Your task to perform on an android device: turn off notifications in google photos Image 0: 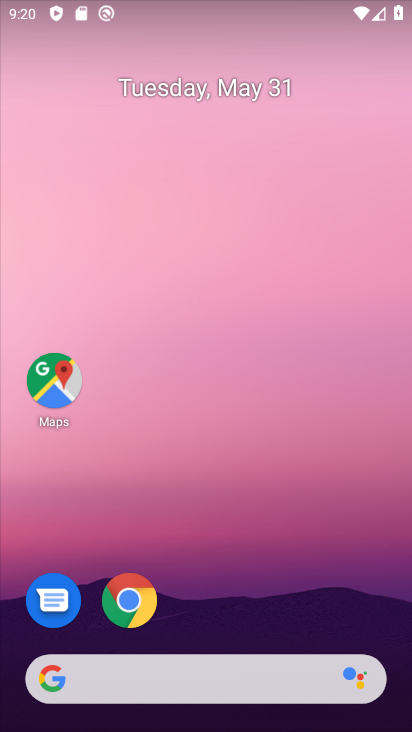
Step 0: drag from (180, 638) to (194, 230)
Your task to perform on an android device: turn off notifications in google photos Image 1: 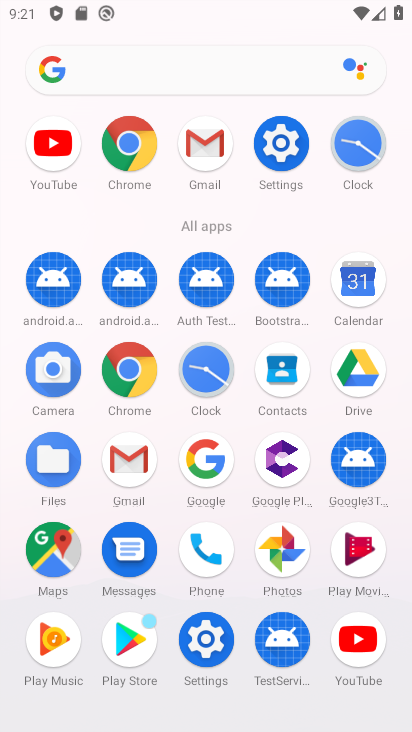
Step 1: click (287, 560)
Your task to perform on an android device: turn off notifications in google photos Image 2: 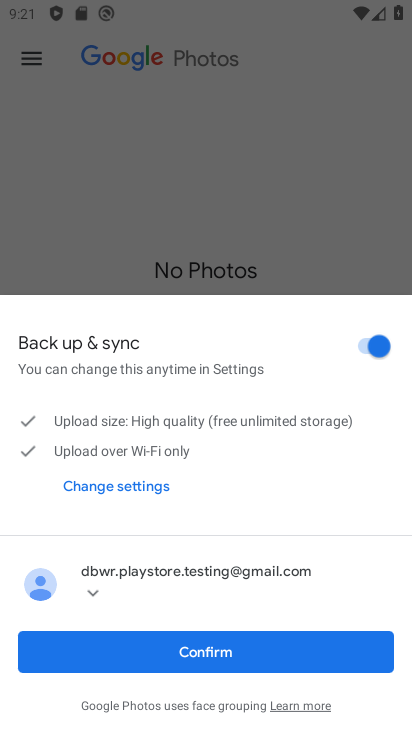
Step 2: click (206, 664)
Your task to perform on an android device: turn off notifications in google photos Image 3: 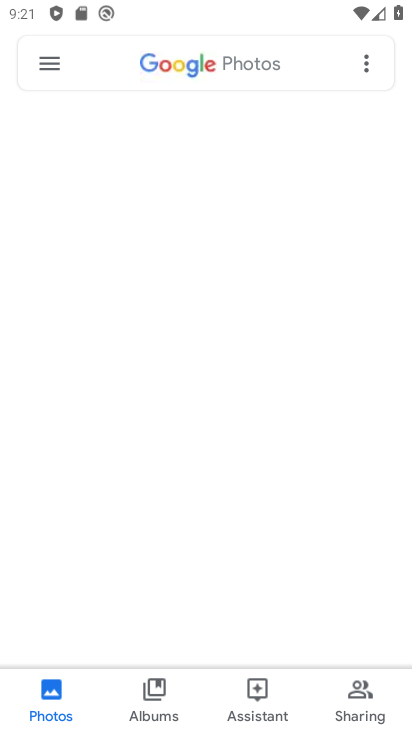
Step 3: click (33, 59)
Your task to perform on an android device: turn off notifications in google photos Image 4: 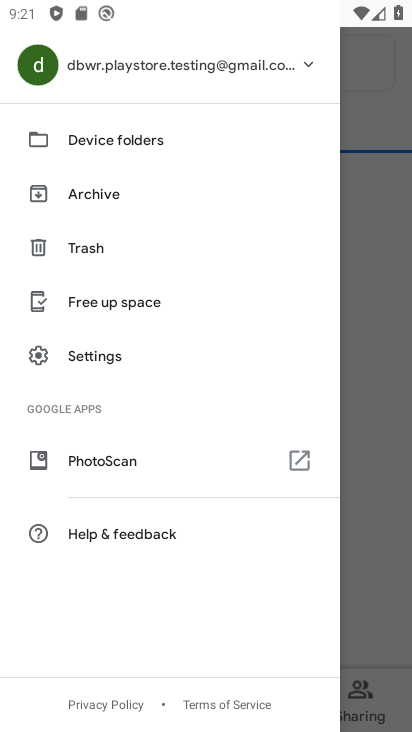
Step 4: click (93, 349)
Your task to perform on an android device: turn off notifications in google photos Image 5: 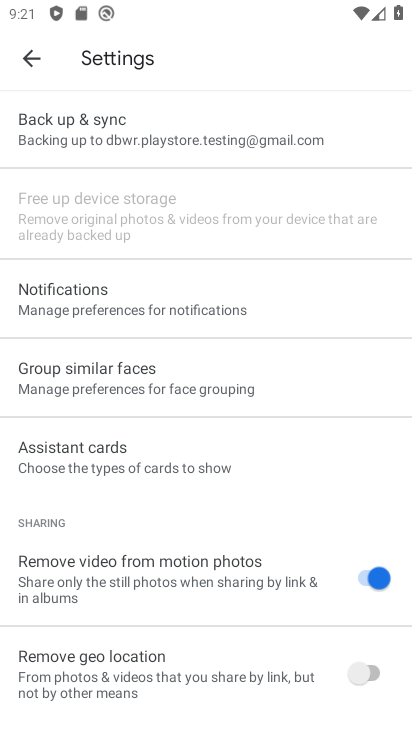
Step 5: click (65, 304)
Your task to perform on an android device: turn off notifications in google photos Image 6: 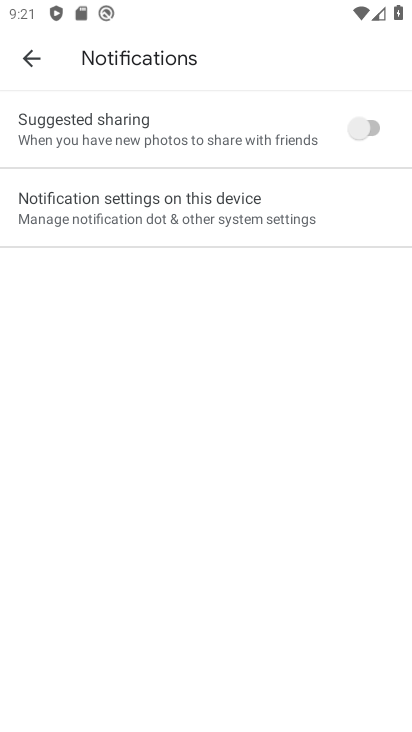
Step 6: click (122, 207)
Your task to perform on an android device: turn off notifications in google photos Image 7: 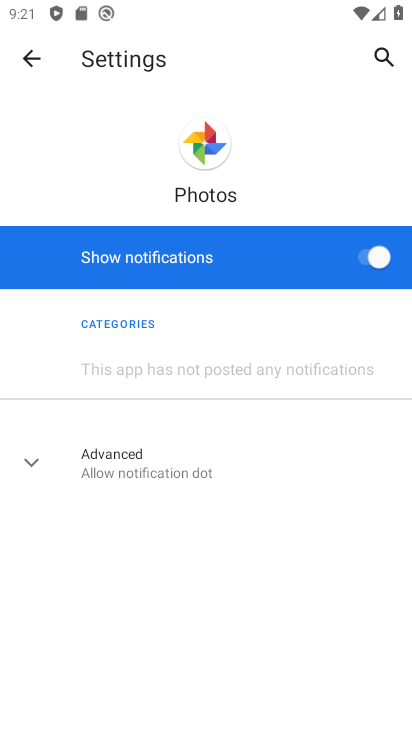
Step 7: click (372, 267)
Your task to perform on an android device: turn off notifications in google photos Image 8: 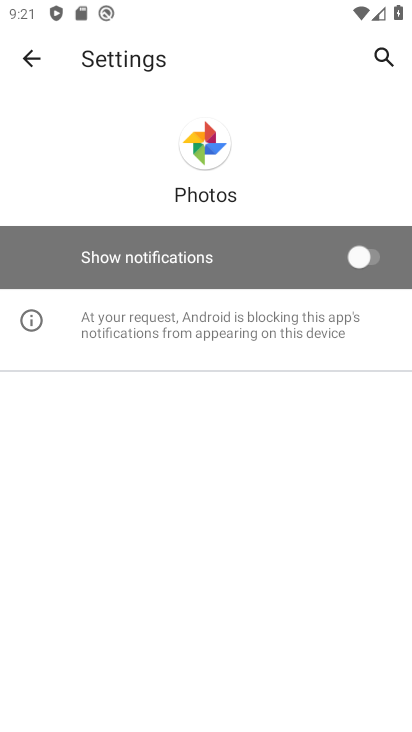
Step 8: task complete